Your task to perform on an android device: move an email to a new category in the gmail app Image 0: 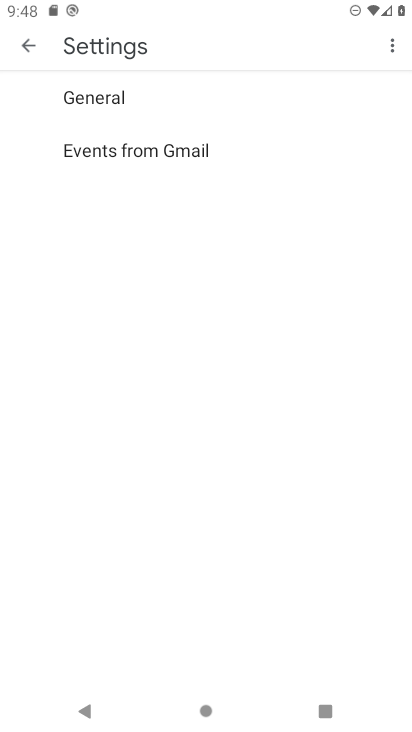
Step 0: click (26, 41)
Your task to perform on an android device: move an email to a new category in the gmail app Image 1: 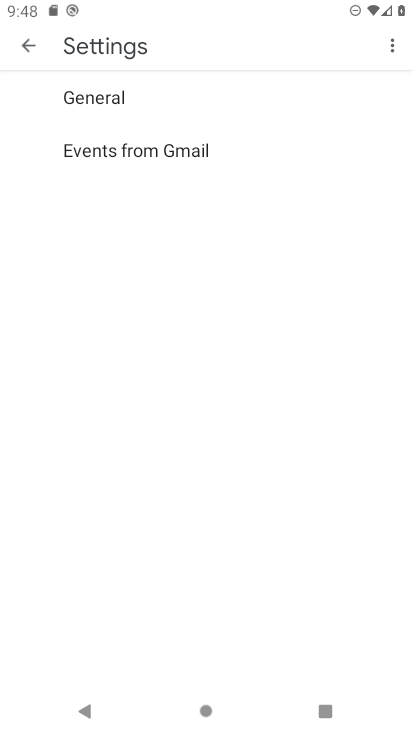
Step 1: click (27, 40)
Your task to perform on an android device: move an email to a new category in the gmail app Image 2: 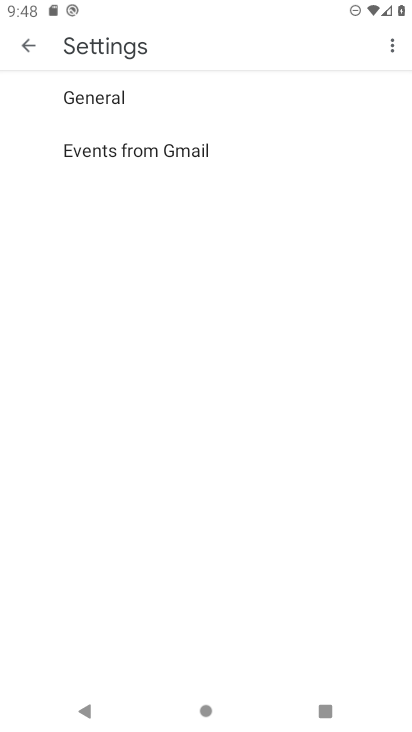
Step 2: click (27, 40)
Your task to perform on an android device: move an email to a new category in the gmail app Image 3: 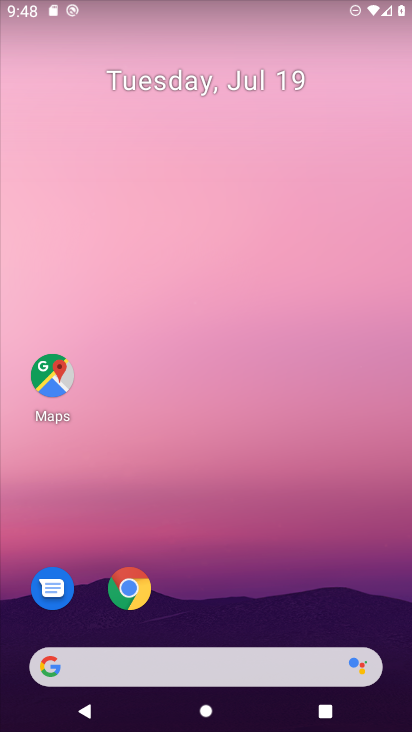
Step 3: drag from (276, 684) to (285, 203)
Your task to perform on an android device: move an email to a new category in the gmail app Image 4: 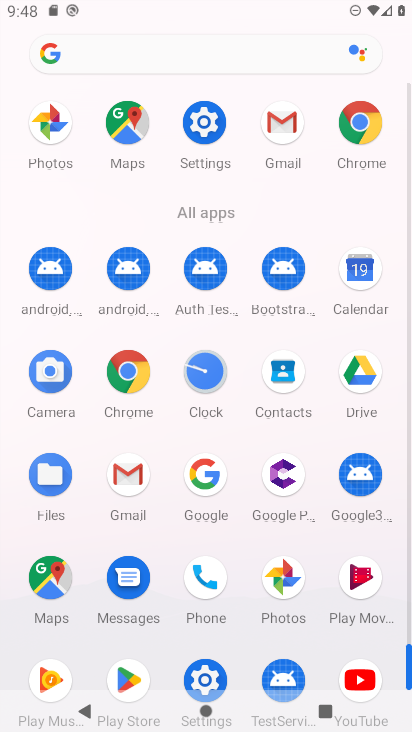
Step 4: click (126, 494)
Your task to perform on an android device: move an email to a new category in the gmail app Image 5: 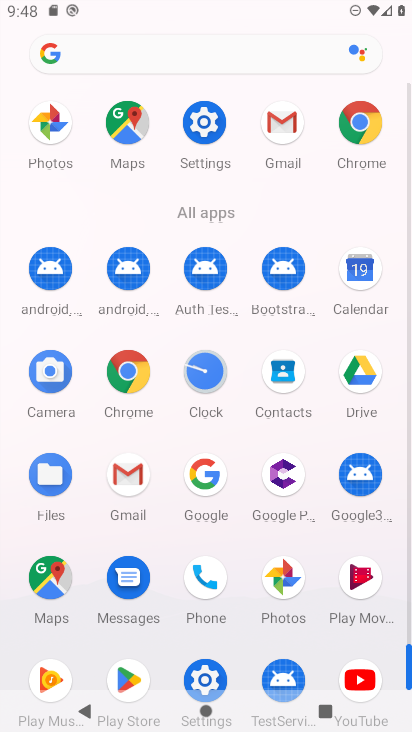
Step 5: click (141, 470)
Your task to perform on an android device: move an email to a new category in the gmail app Image 6: 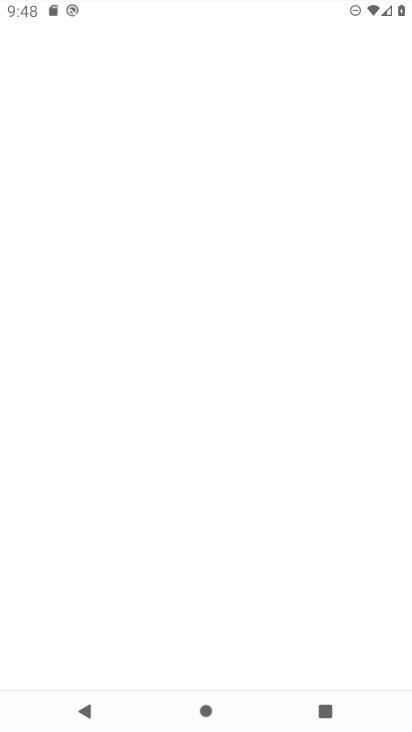
Step 6: click (141, 470)
Your task to perform on an android device: move an email to a new category in the gmail app Image 7: 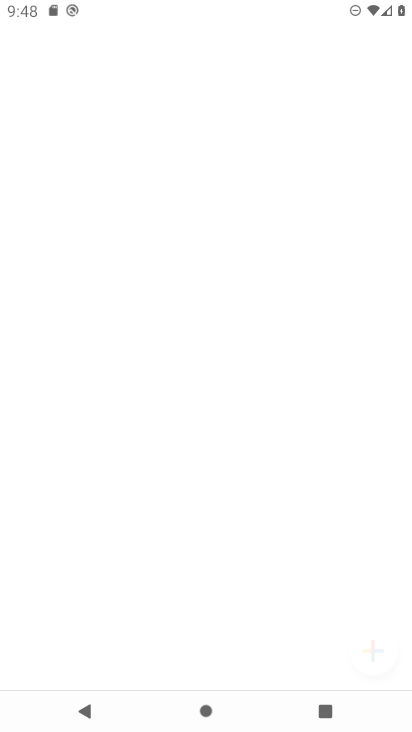
Step 7: click (141, 470)
Your task to perform on an android device: move an email to a new category in the gmail app Image 8: 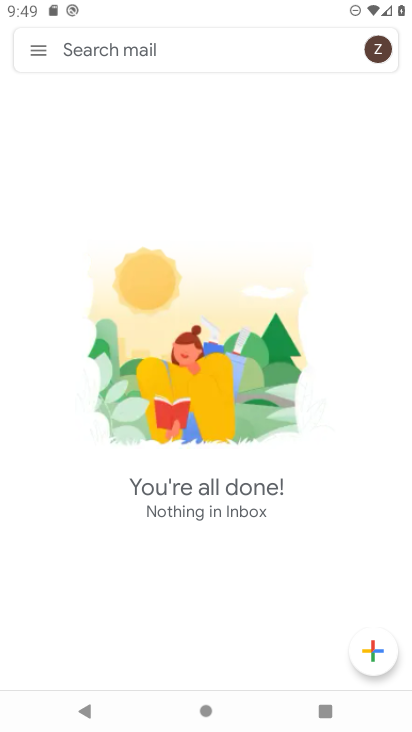
Step 8: click (44, 51)
Your task to perform on an android device: move an email to a new category in the gmail app Image 9: 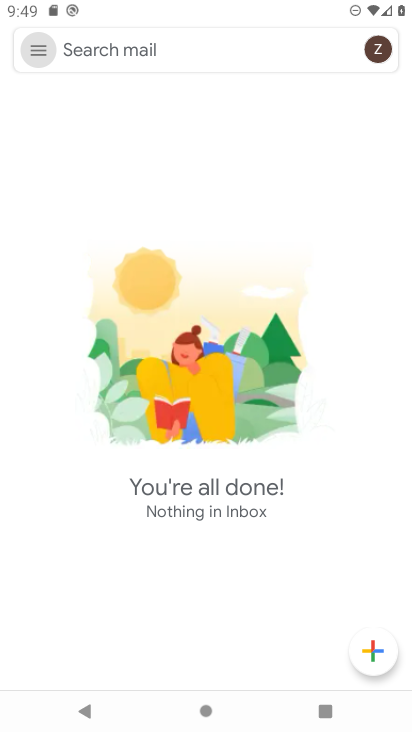
Step 9: drag from (44, 51) to (302, 587)
Your task to perform on an android device: move an email to a new category in the gmail app Image 10: 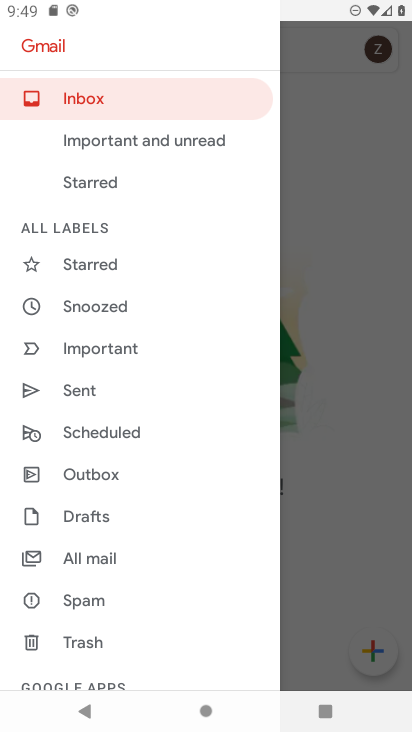
Step 10: click (54, 560)
Your task to perform on an android device: move an email to a new category in the gmail app Image 11: 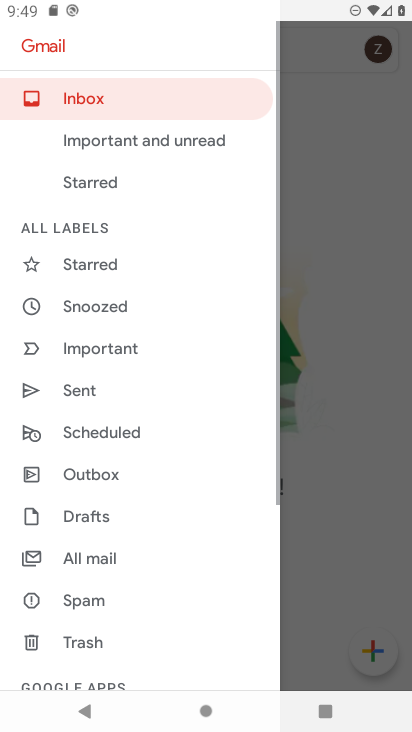
Step 11: click (98, 564)
Your task to perform on an android device: move an email to a new category in the gmail app Image 12: 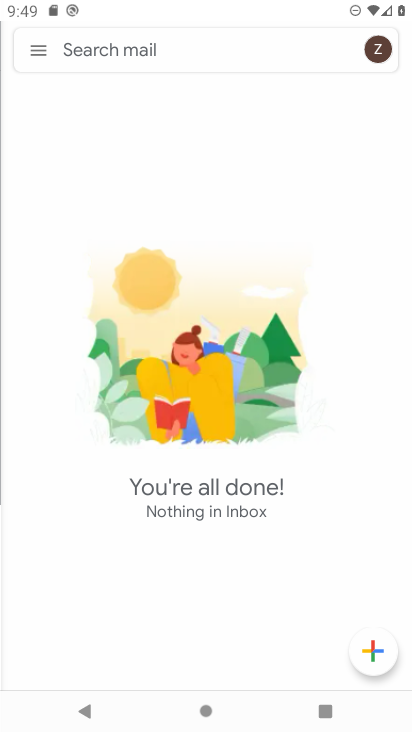
Step 12: click (100, 563)
Your task to perform on an android device: move an email to a new category in the gmail app Image 13: 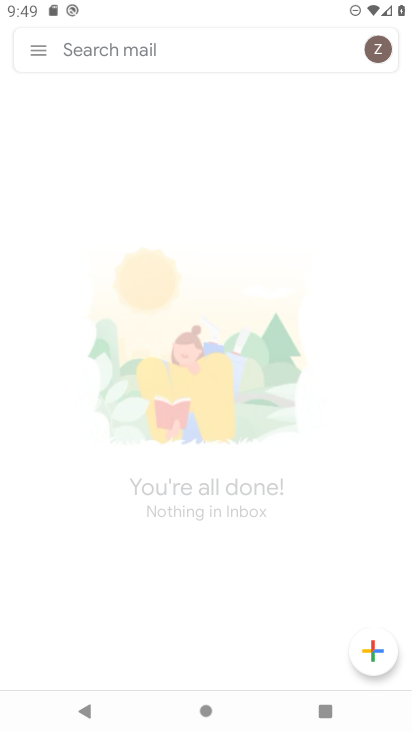
Step 13: click (100, 563)
Your task to perform on an android device: move an email to a new category in the gmail app Image 14: 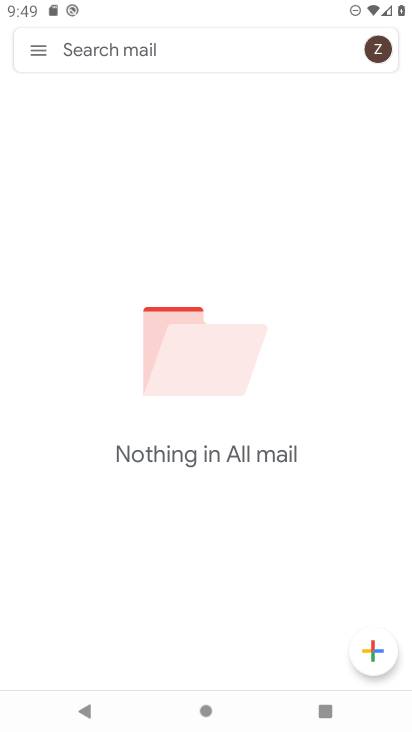
Step 14: task complete